Your task to perform on an android device: all mails in gmail Image 0: 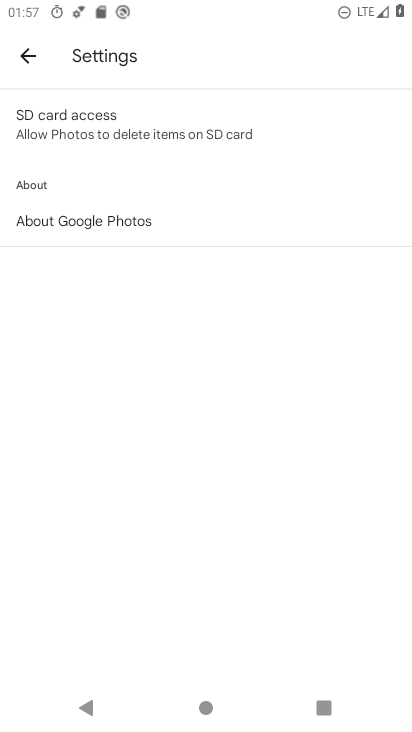
Step 0: press home button
Your task to perform on an android device: all mails in gmail Image 1: 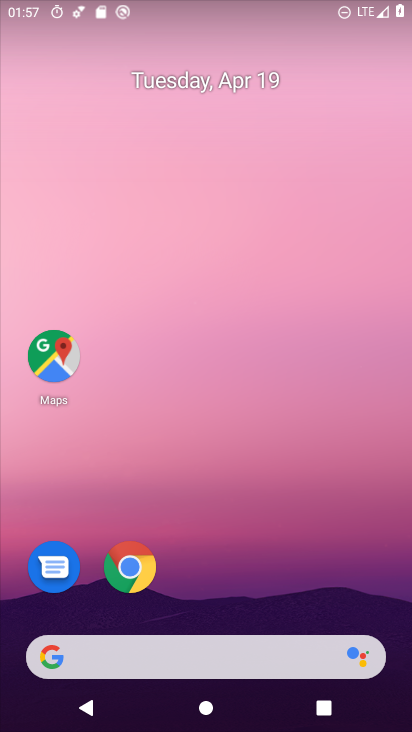
Step 1: drag from (276, 584) to (276, 73)
Your task to perform on an android device: all mails in gmail Image 2: 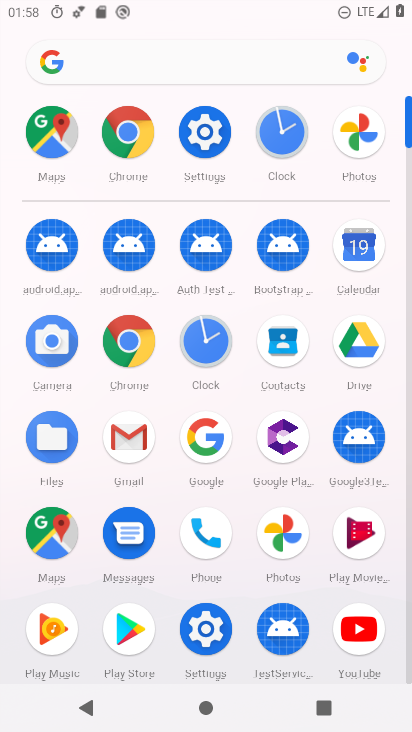
Step 2: click (129, 437)
Your task to perform on an android device: all mails in gmail Image 3: 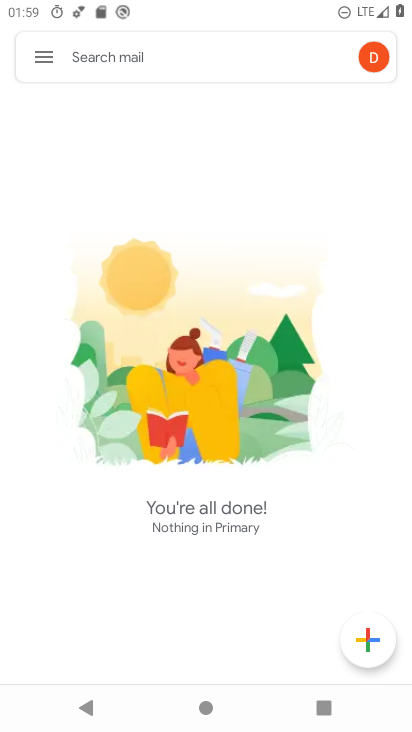
Step 3: click (47, 55)
Your task to perform on an android device: all mails in gmail Image 4: 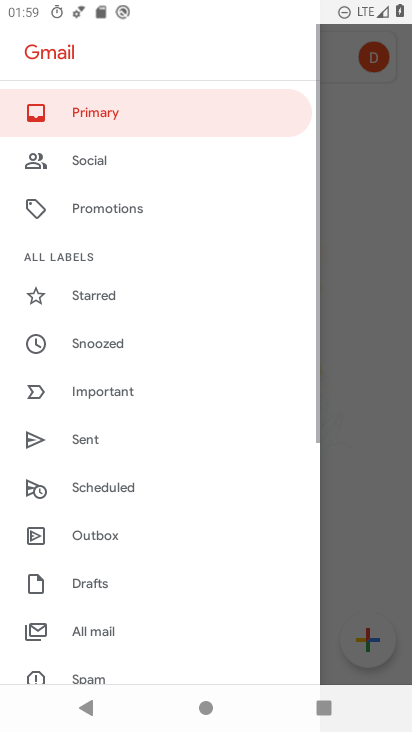
Step 4: drag from (116, 587) to (161, 324)
Your task to perform on an android device: all mails in gmail Image 5: 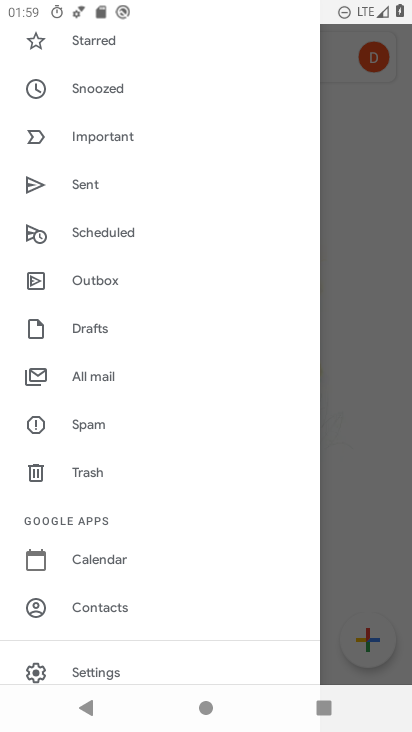
Step 5: click (79, 381)
Your task to perform on an android device: all mails in gmail Image 6: 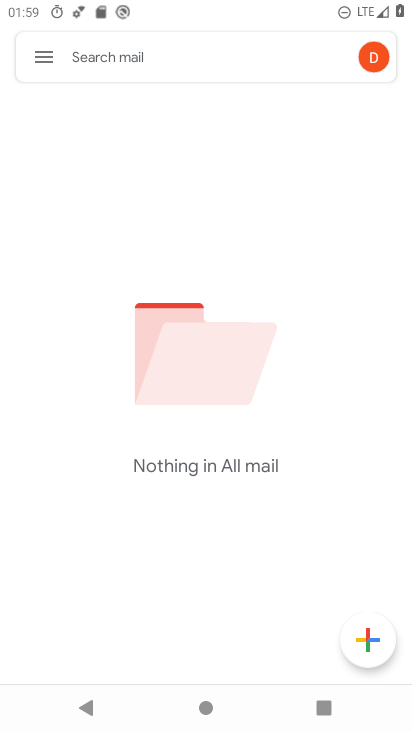
Step 6: task complete